Your task to perform on an android device: Open Maps and search for coffee Image 0: 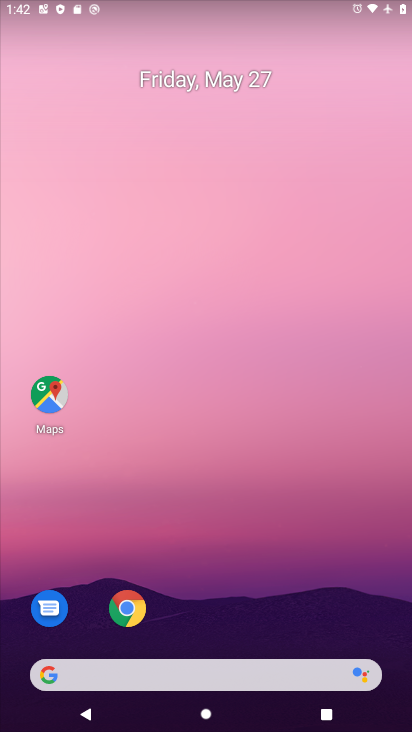
Step 0: press home button
Your task to perform on an android device: Open Maps and search for coffee Image 1: 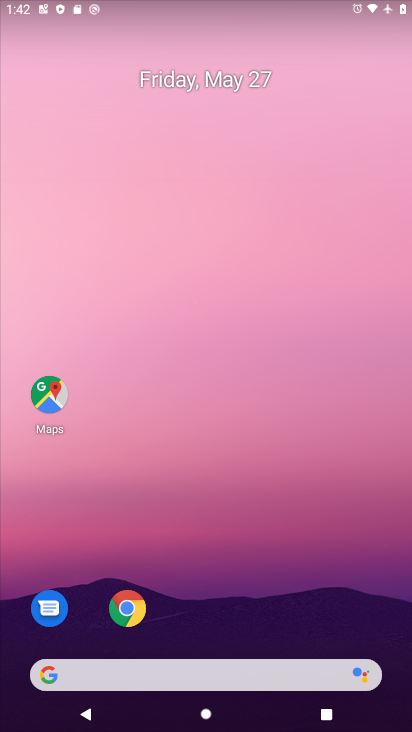
Step 1: click (45, 396)
Your task to perform on an android device: Open Maps and search for coffee Image 2: 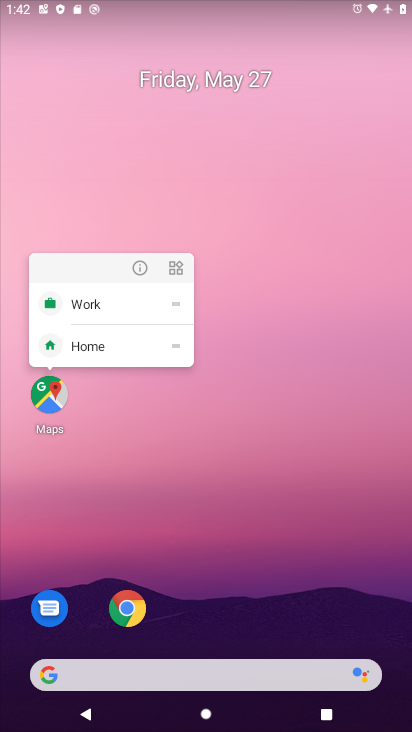
Step 2: click (44, 400)
Your task to perform on an android device: Open Maps and search for coffee Image 3: 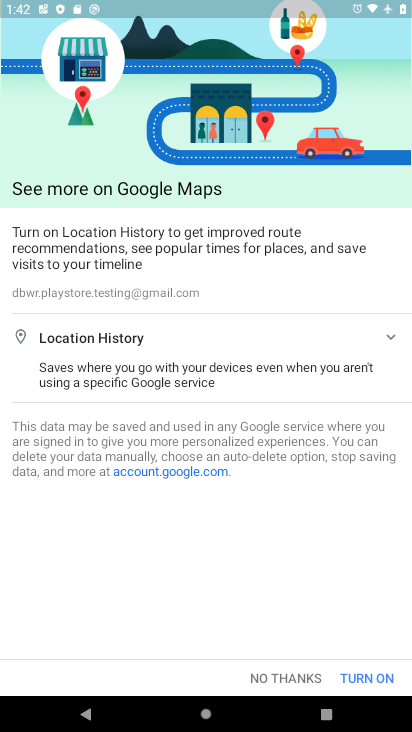
Step 3: click (255, 678)
Your task to perform on an android device: Open Maps and search for coffee Image 4: 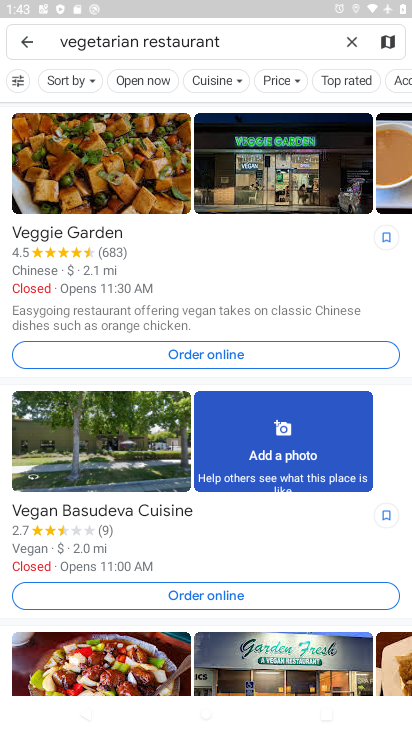
Step 4: click (347, 37)
Your task to perform on an android device: Open Maps and search for coffee Image 5: 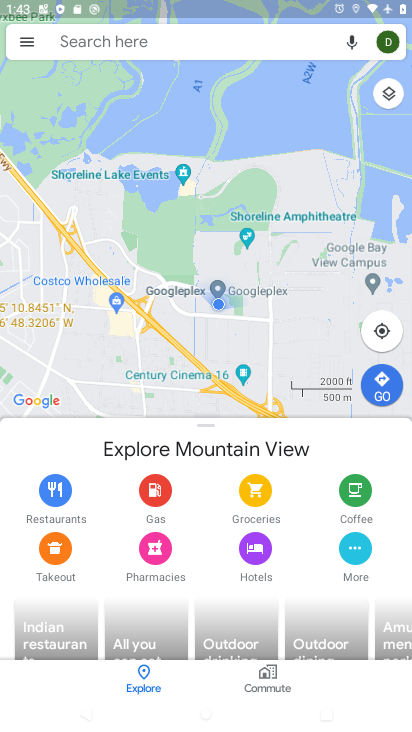
Step 5: click (154, 38)
Your task to perform on an android device: Open Maps and search for coffee Image 6: 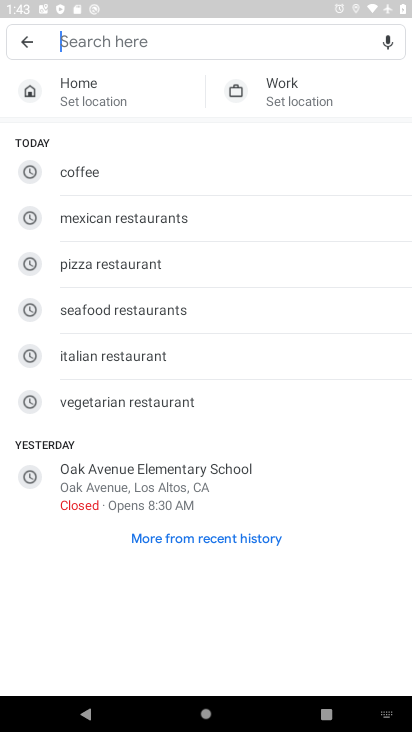
Step 6: click (68, 173)
Your task to perform on an android device: Open Maps and search for coffee Image 7: 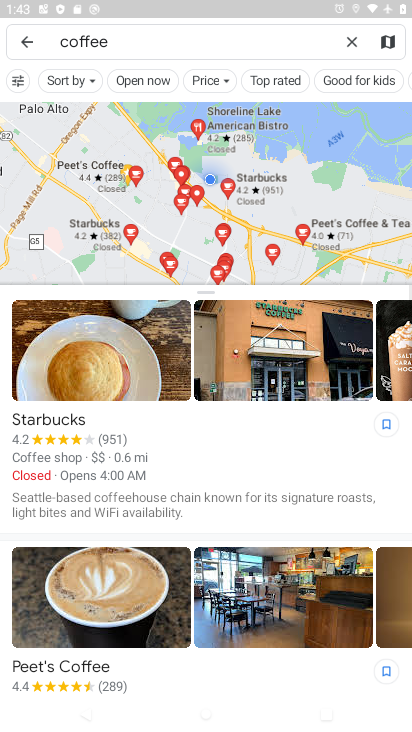
Step 7: task complete